Your task to perform on an android device: Empty the shopping cart on bestbuy.com. Add "logitech g pro" to the cart on bestbuy.com, then select checkout. Image 0: 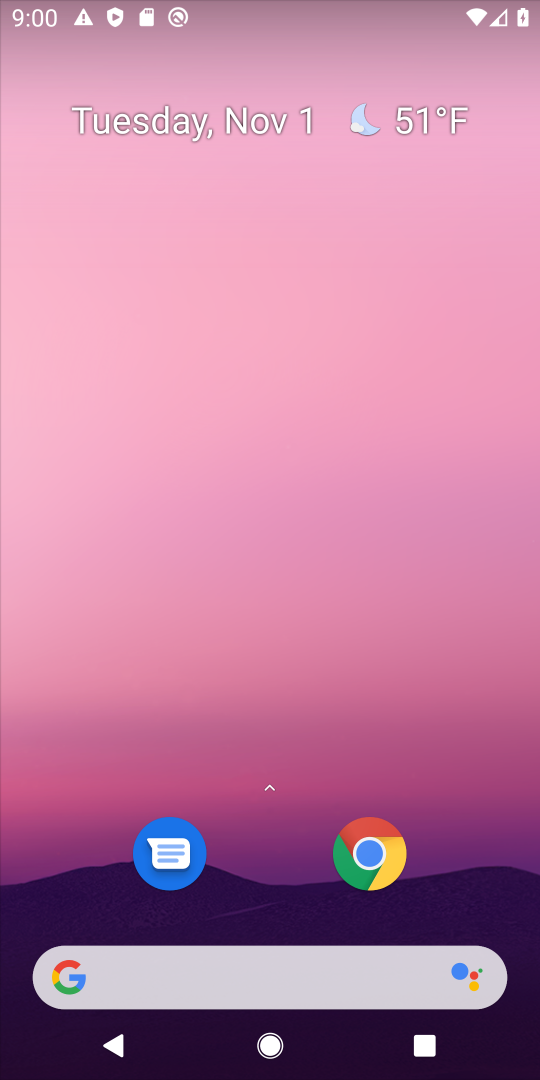
Step 0: click (346, 995)
Your task to perform on an android device: Empty the shopping cart on bestbuy.com. Add "logitech g pro" to the cart on bestbuy.com, then select checkout. Image 1: 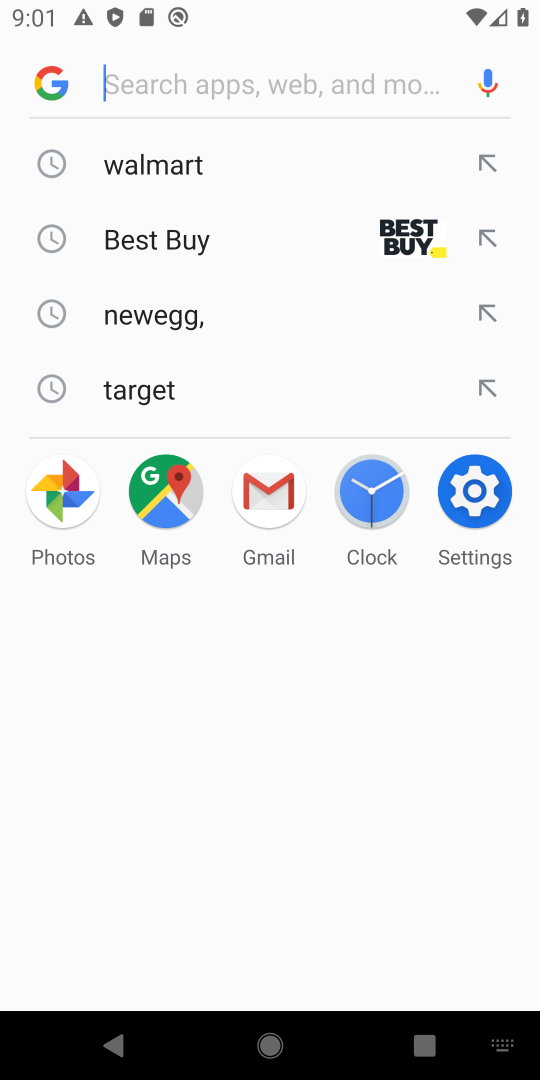
Step 1: type "bestbuy"
Your task to perform on an android device: Empty the shopping cart on bestbuy.com. Add "logitech g pro" to the cart on bestbuy.com, then select checkout. Image 2: 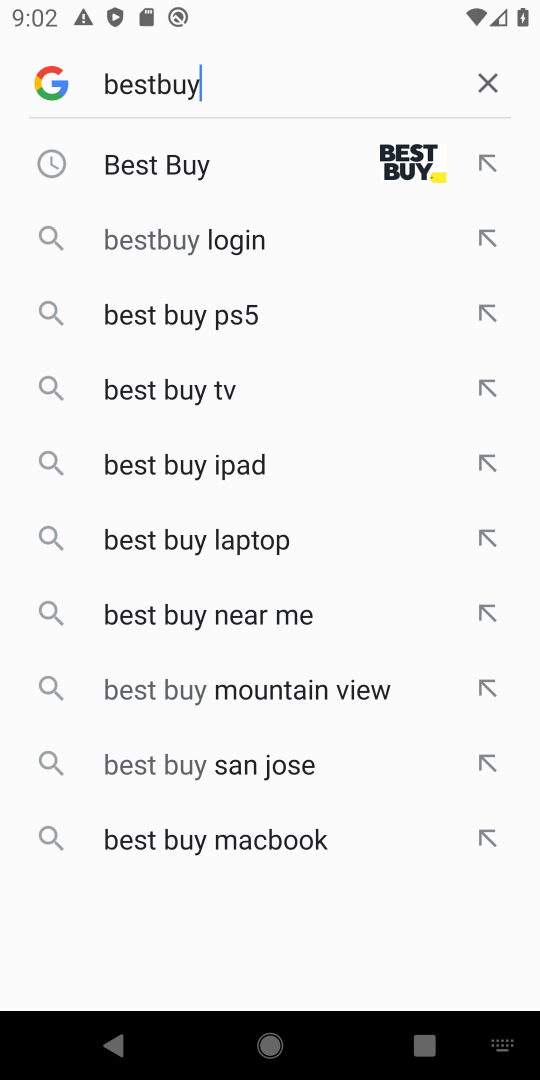
Step 2: click (168, 164)
Your task to perform on an android device: Empty the shopping cart on bestbuy.com. Add "logitech g pro" to the cart on bestbuy.com, then select checkout. Image 3: 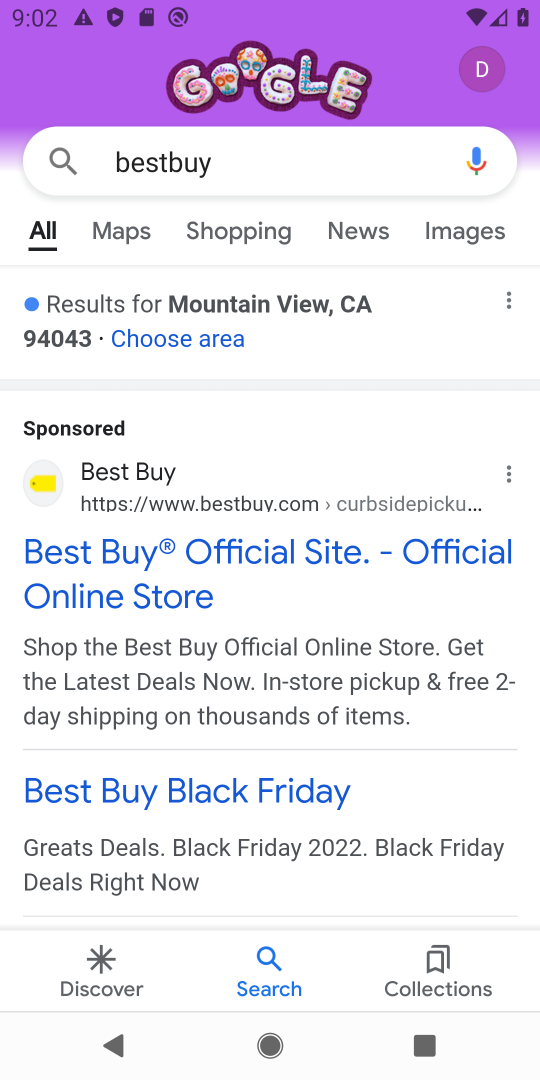
Step 3: click (93, 546)
Your task to perform on an android device: Empty the shopping cart on bestbuy.com. Add "logitech g pro" to the cart on bestbuy.com, then select checkout. Image 4: 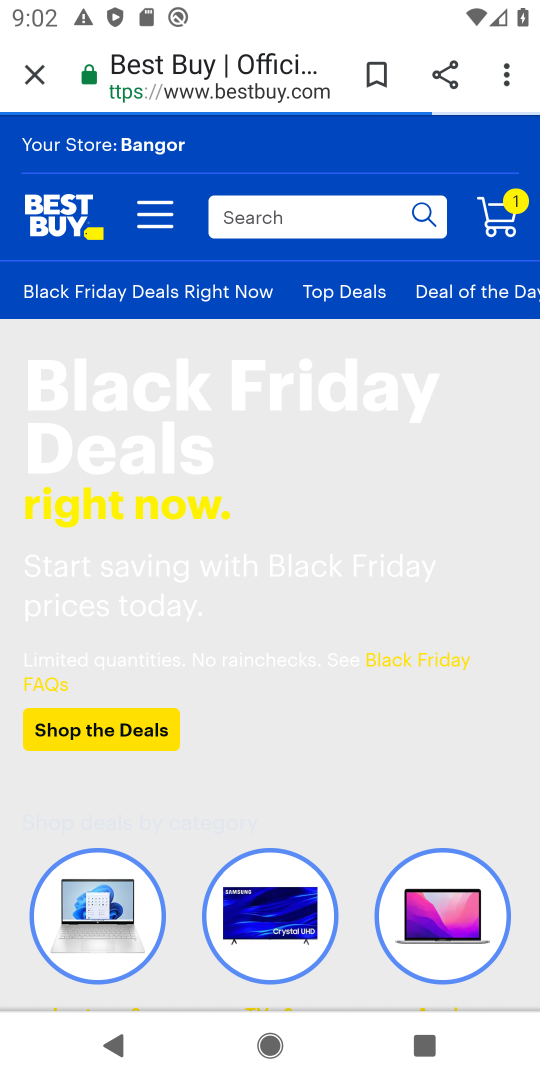
Step 4: click (300, 214)
Your task to perform on an android device: Empty the shopping cart on bestbuy.com. Add "logitech g pro" to the cart on bestbuy.com, then select checkout. Image 5: 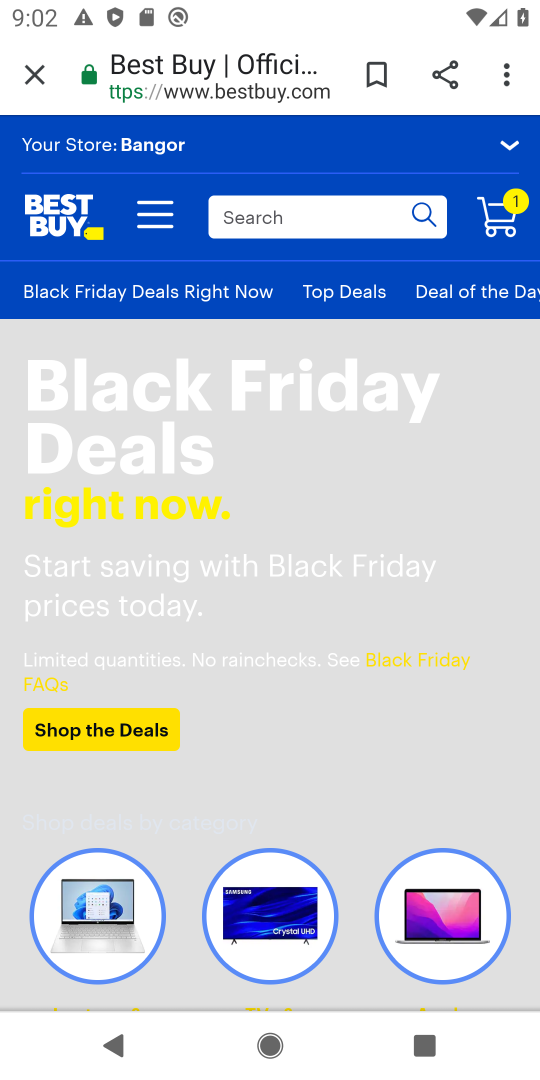
Step 5: task complete